Your task to perform on an android device: delete the emails in spam in the gmail app Image 0: 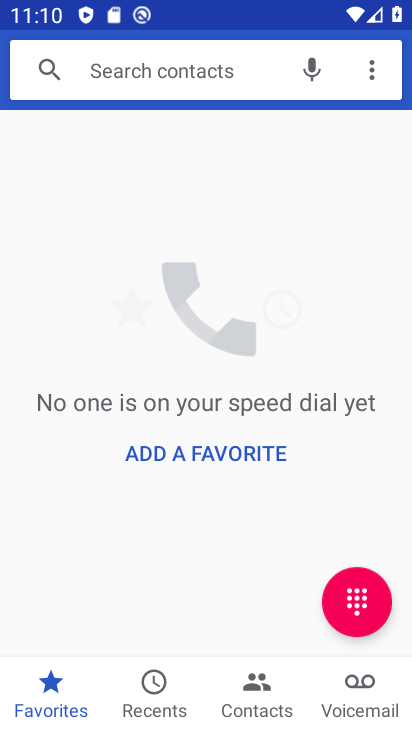
Step 0: press home button
Your task to perform on an android device: delete the emails in spam in the gmail app Image 1: 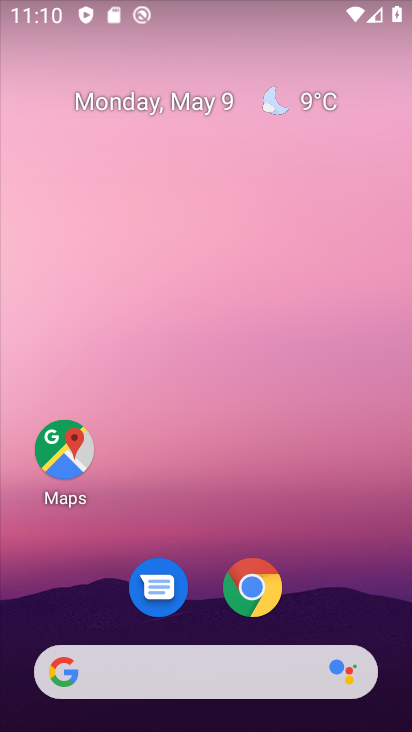
Step 1: drag from (109, 631) to (115, 339)
Your task to perform on an android device: delete the emails in spam in the gmail app Image 2: 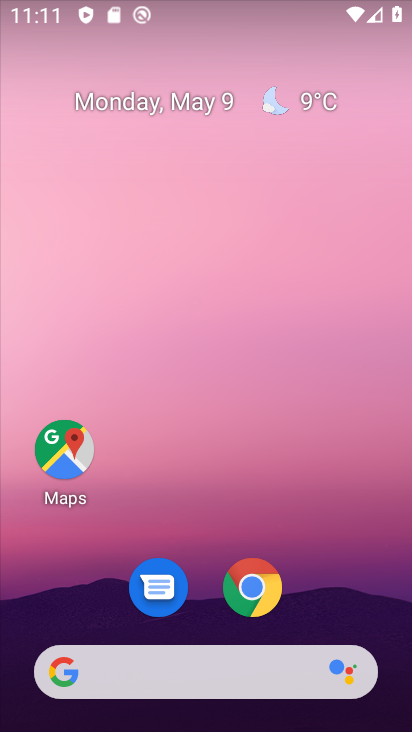
Step 2: drag from (206, 624) to (241, 278)
Your task to perform on an android device: delete the emails in spam in the gmail app Image 3: 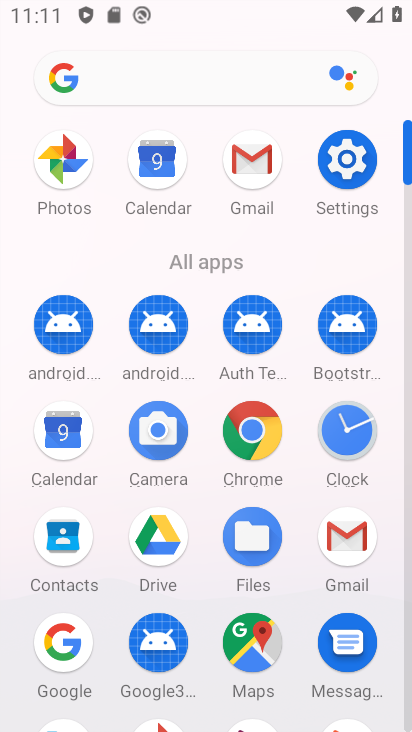
Step 3: click (243, 176)
Your task to perform on an android device: delete the emails in spam in the gmail app Image 4: 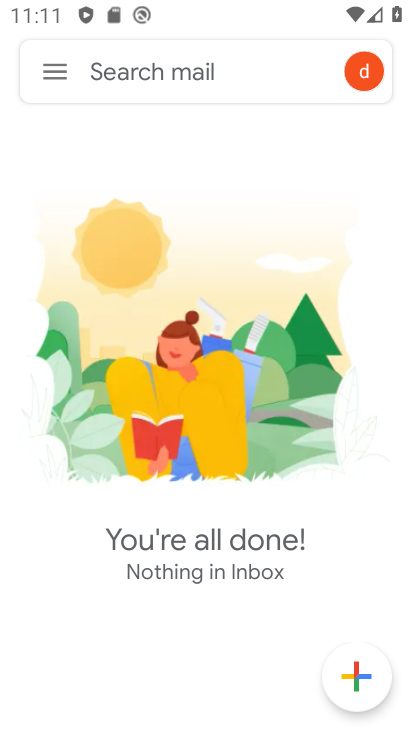
Step 4: click (44, 75)
Your task to perform on an android device: delete the emails in spam in the gmail app Image 5: 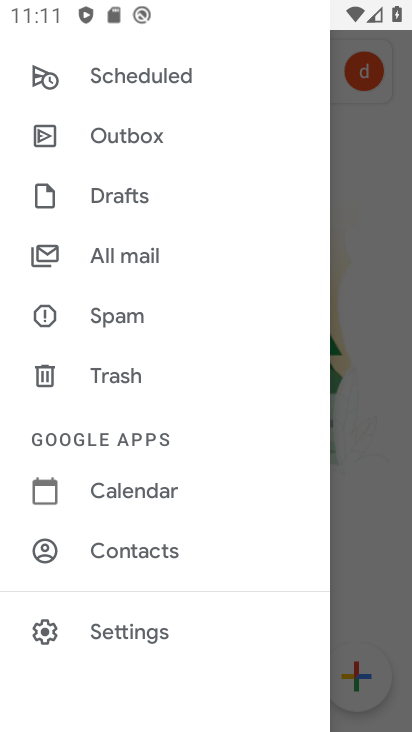
Step 5: click (144, 325)
Your task to perform on an android device: delete the emails in spam in the gmail app Image 6: 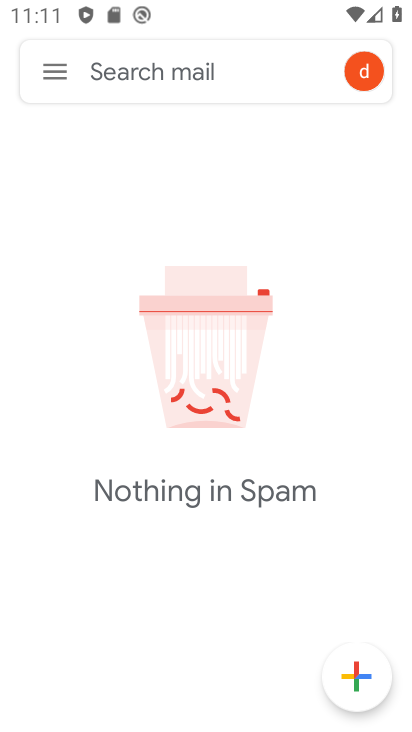
Step 6: task complete